Your task to perform on an android device: Search for lg ultragear on bestbuy.com, select the first entry, add it to the cart, then select checkout. Image 0: 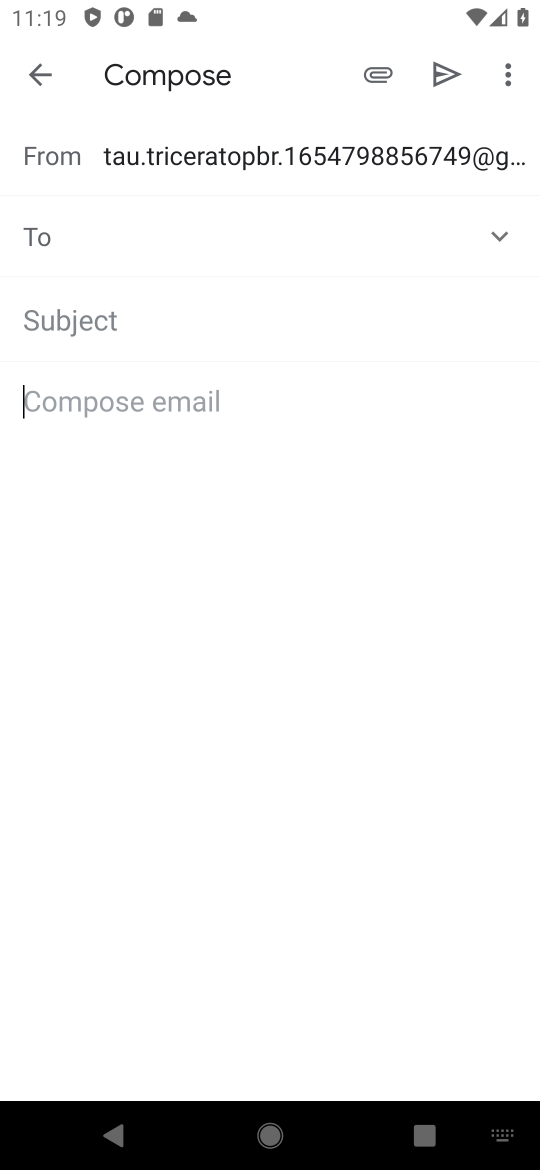
Step 0: press home button
Your task to perform on an android device: Search for lg ultragear on bestbuy.com, select the first entry, add it to the cart, then select checkout. Image 1: 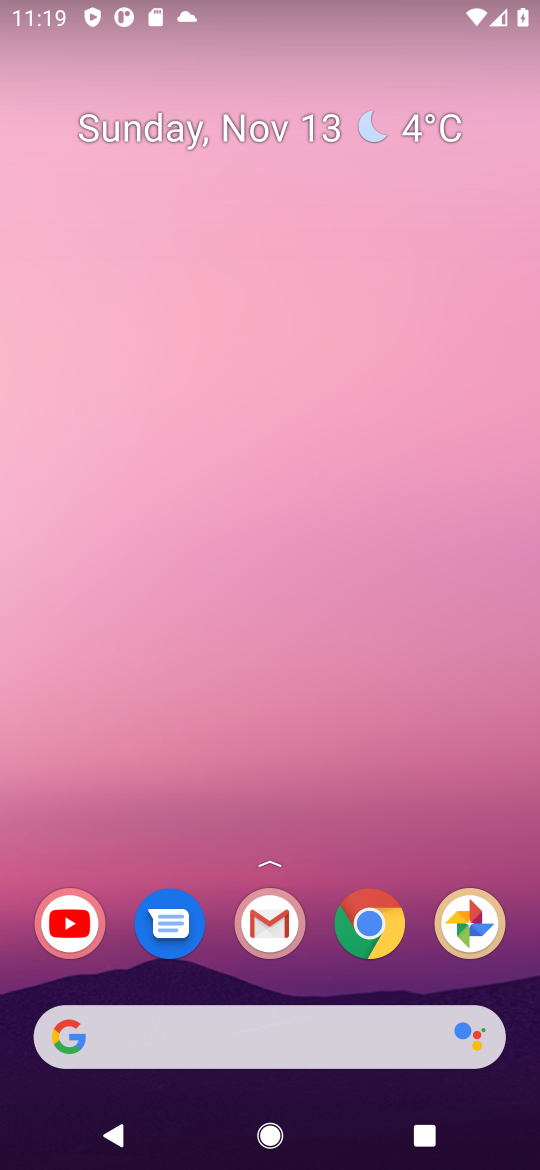
Step 1: click (377, 921)
Your task to perform on an android device: Search for lg ultragear on bestbuy.com, select the first entry, add it to the cart, then select checkout. Image 2: 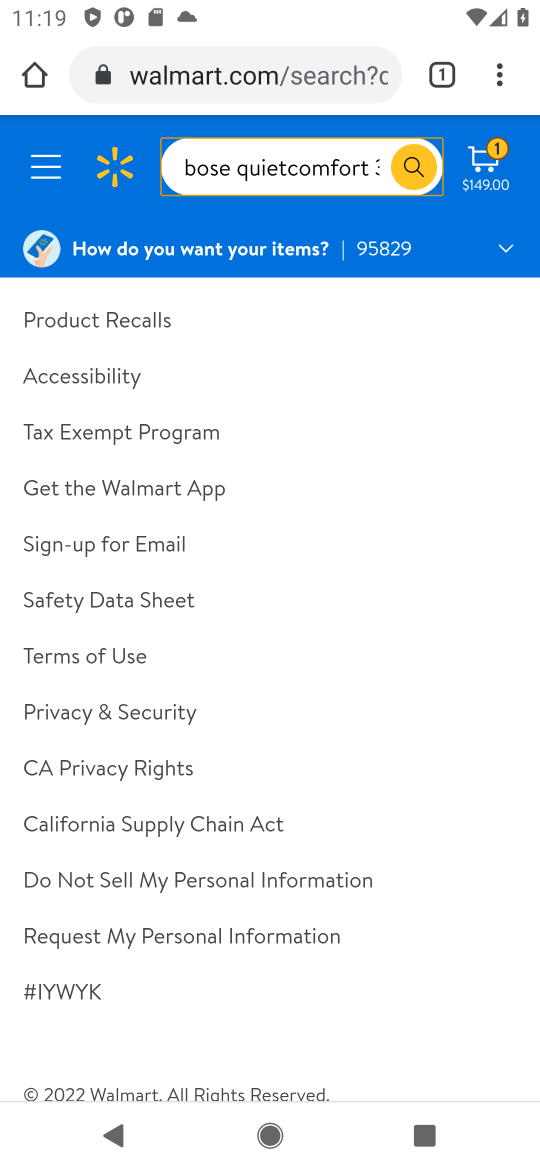
Step 2: click (309, 78)
Your task to perform on an android device: Search for lg ultragear on bestbuy.com, select the first entry, add it to the cart, then select checkout. Image 3: 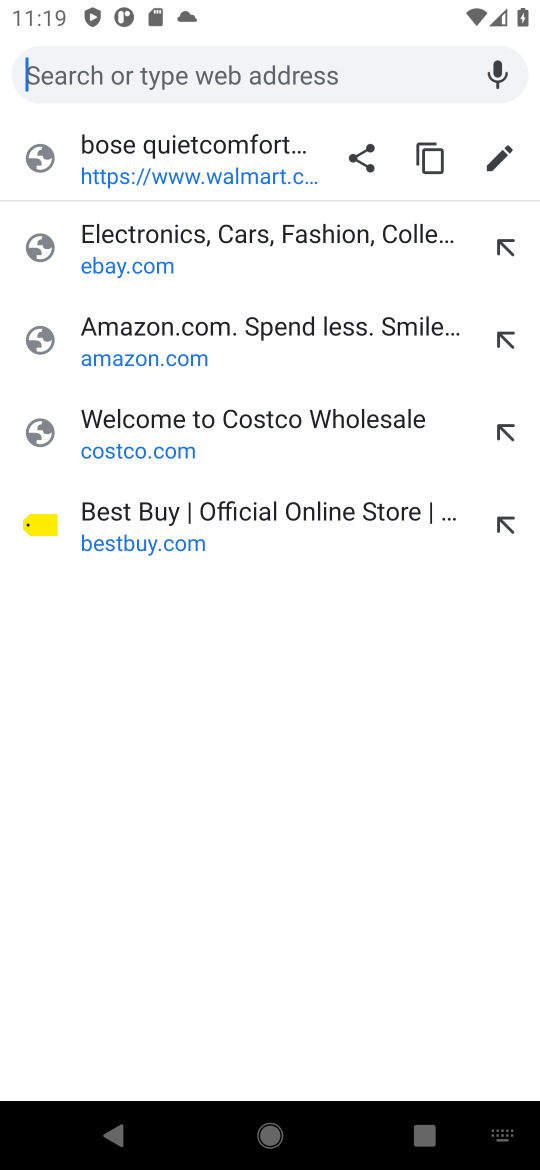
Step 3: type "bestbuy.com"
Your task to perform on an android device: Search for lg ultragear on bestbuy.com, select the first entry, add it to the cart, then select checkout. Image 4: 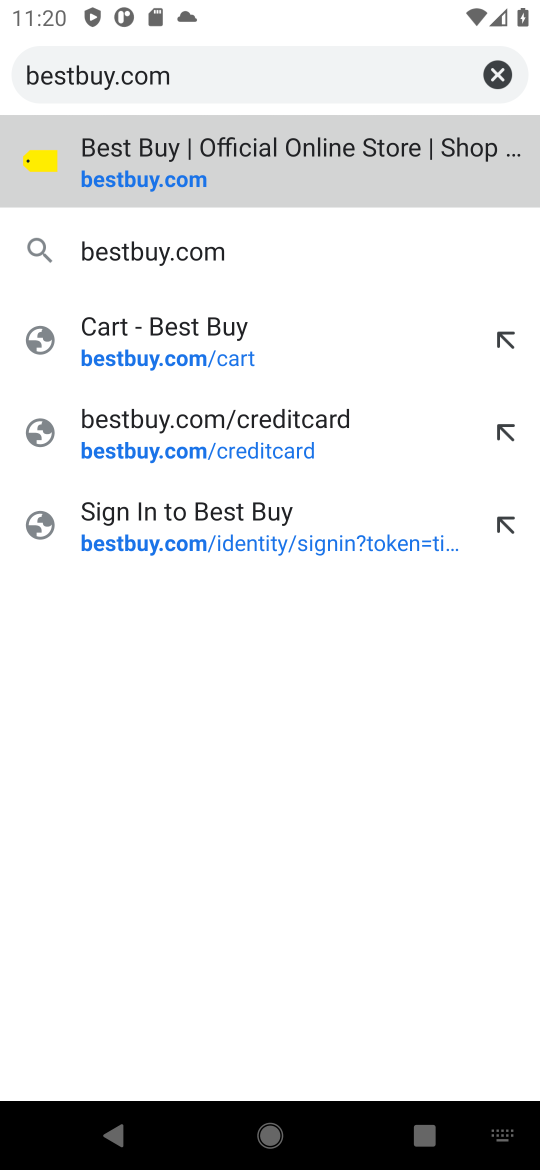
Step 4: press enter
Your task to perform on an android device: Search for lg ultragear on bestbuy.com, select the first entry, add it to the cart, then select checkout. Image 5: 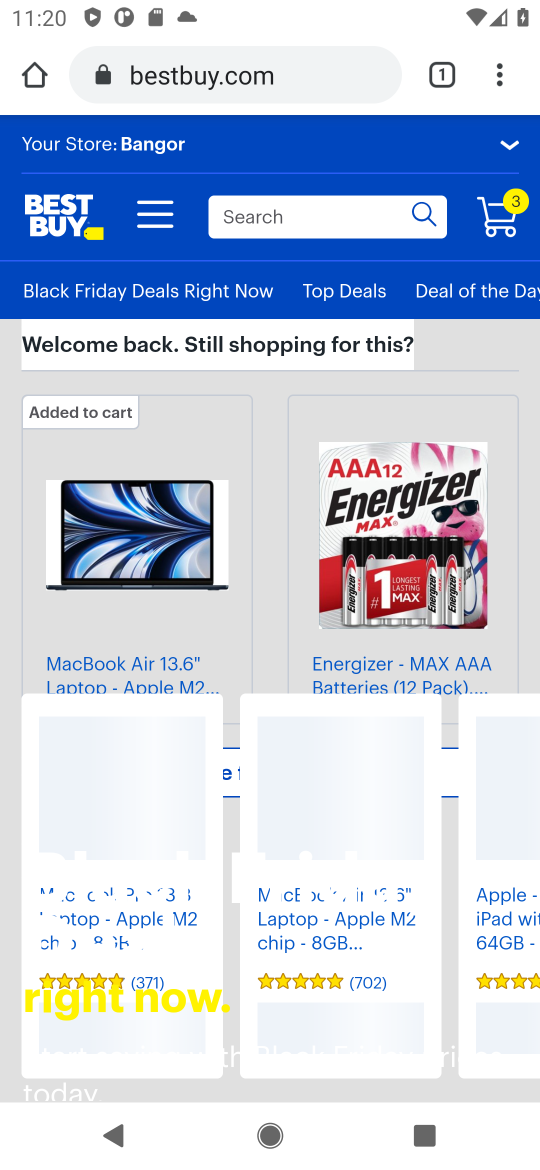
Step 5: click (300, 222)
Your task to perform on an android device: Search for lg ultragear on bestbuy.com, select the first entry, add it to the cart, then select checkout. Image 6: 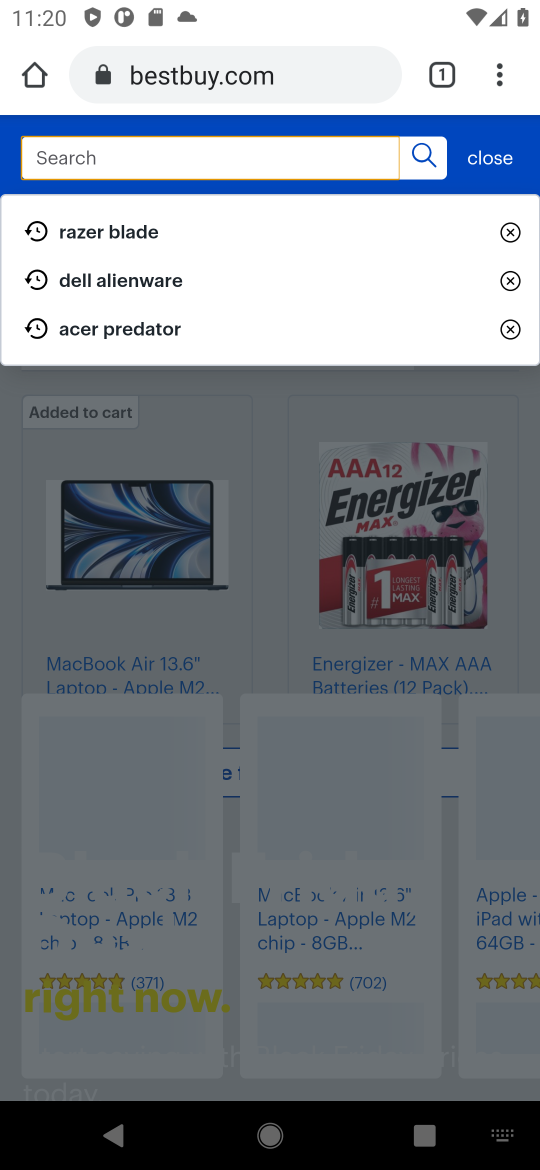
Step 6: type "lg ultragear"
Your task to perform on an android device: Search for lg ultragear on bestbuy.com, select the first entry, add it to the cart, then select checkout. Image 7: 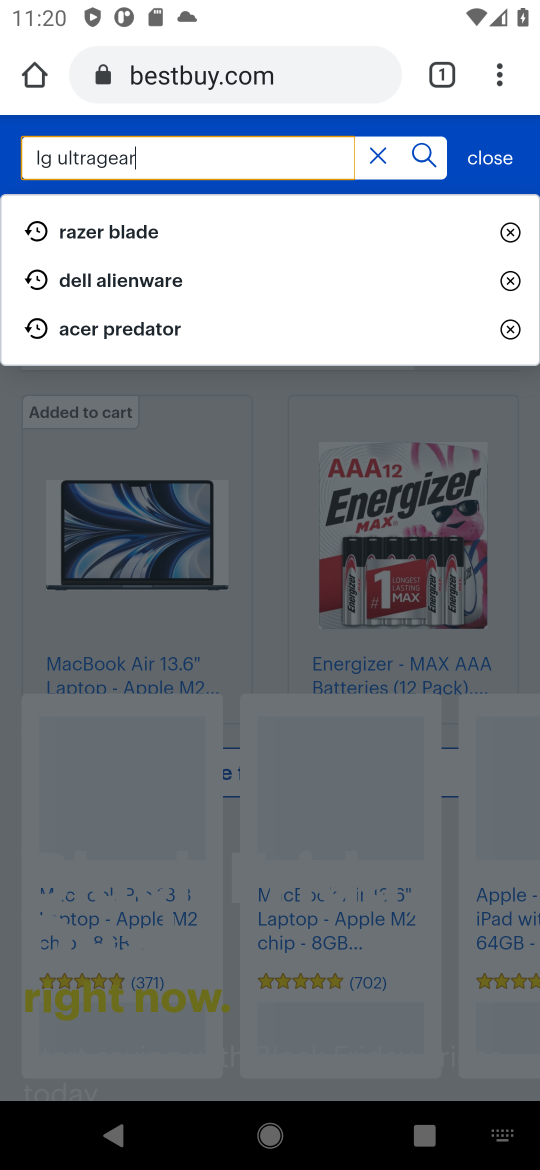
Step 7: press enter
Your task to perform on an android device: Search for lg ultragear on bestbuy.com, select the first entry, add it to the cart, then select checkout. Image 8: 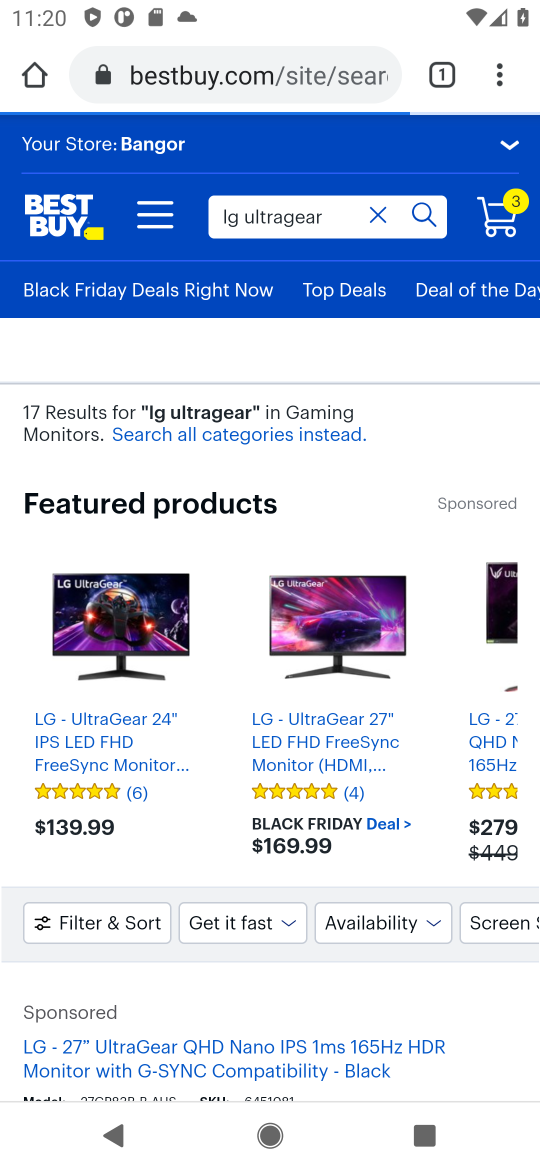
Step 8: drag from (276, 983) to (300, 601)
Your task to perform on an android device: Search for lg ultragear on bestbuy.com, select the first entry, add it to the cart, then select checkout. Image 9: 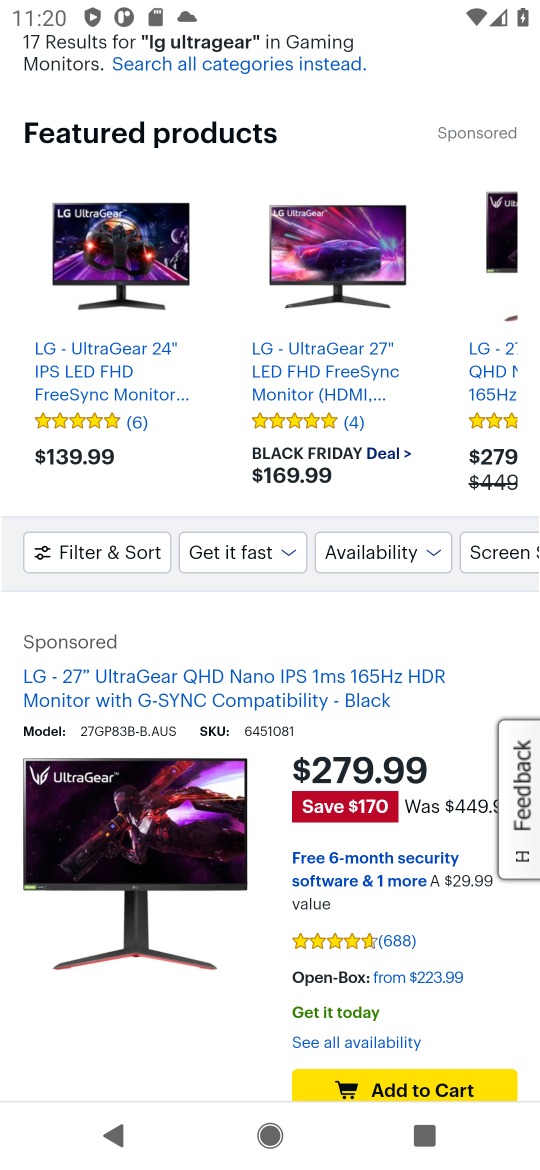
Step 9: click (153, 868)
Your task to perform on an android device: Search for lg ultragear on bestbuy.com, select the first entry, add it to the cart, then select checkout. Image 10: 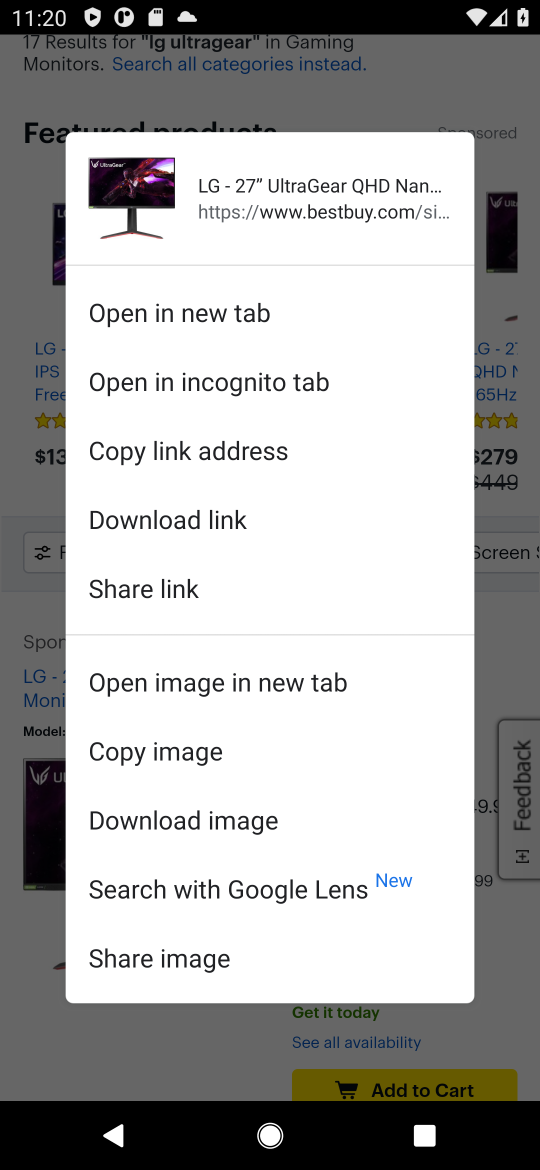
Step 10: click (521, 639)
Your task to perform on an android device: Search for lg ultragear on bestbuy.com, select the first entry, add it to the cart, then select checkout. Image 11: 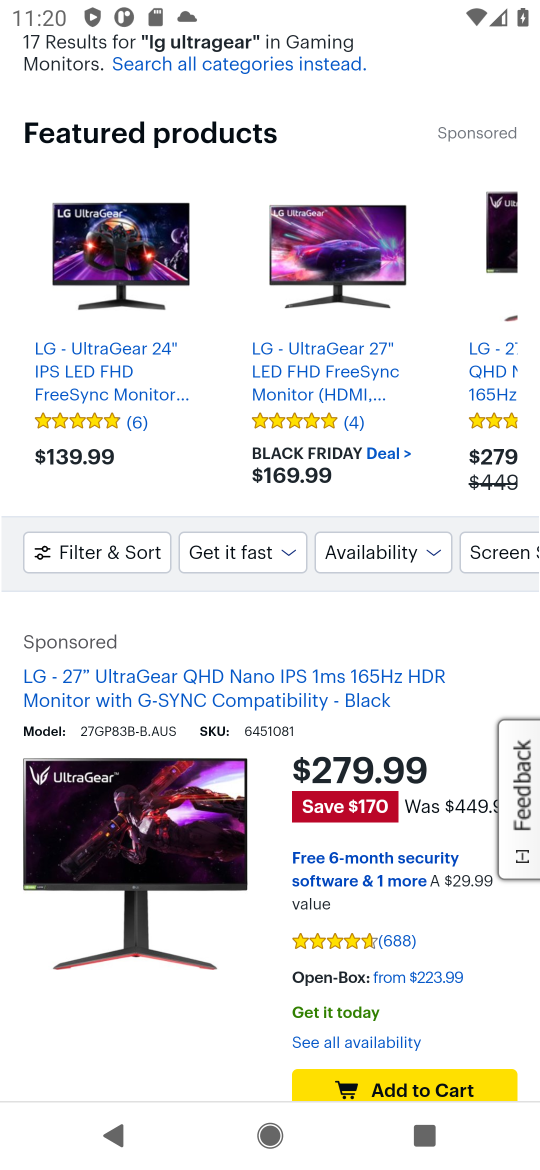
Step 11: drag from (378, 758) to (415, 332)
Your task to perform on an android device: Search for lg ultragear on bestbuy.com, select the first entry, add it to the cart, then select checkout. Image 12: 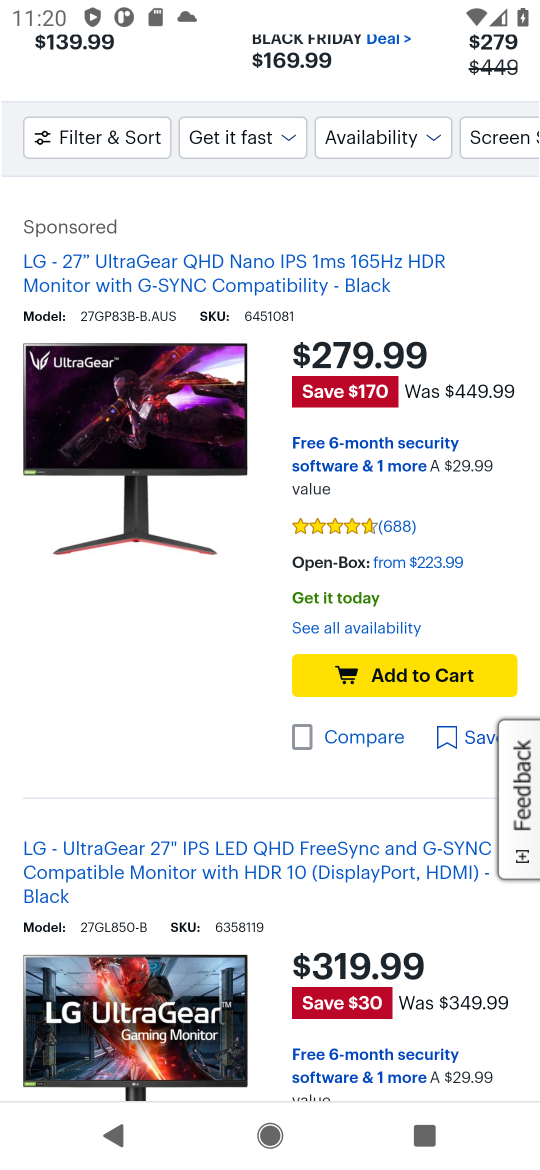
Step 12: click (193, 1003)
Your task to perform on an android device: Search for lg ultragear on bestbuy.com, select the first entry, add it to the cart, then select checkout. Image 13: 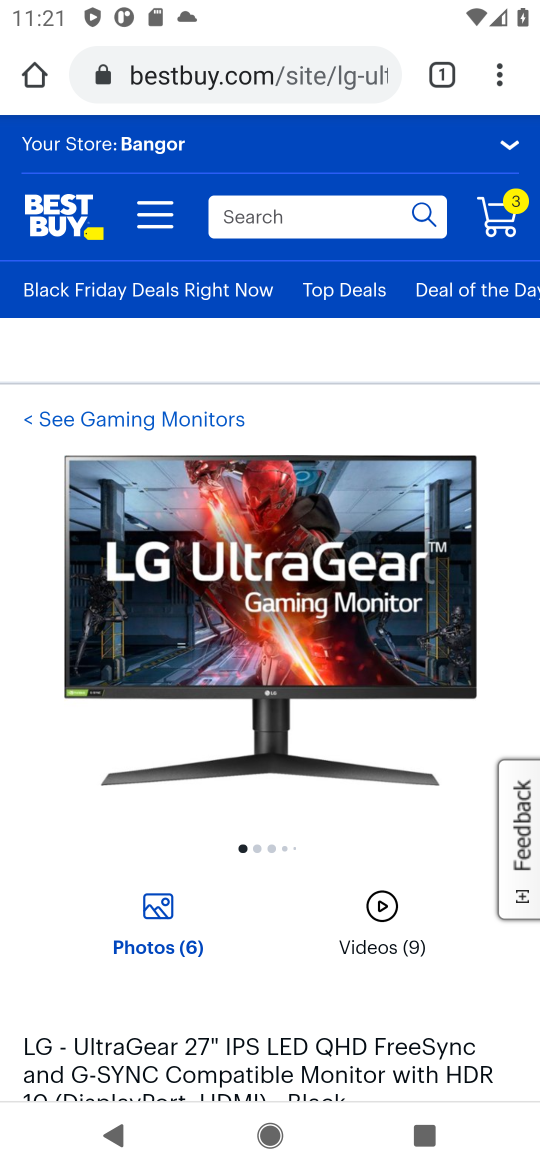
Step 13: drag from (486, 884) to (502, 345)
Your task to perform on an android device: Search for lg ultragear on bestbuy.com, select the first entry, add it to the cart, then select checkout. Image 14: 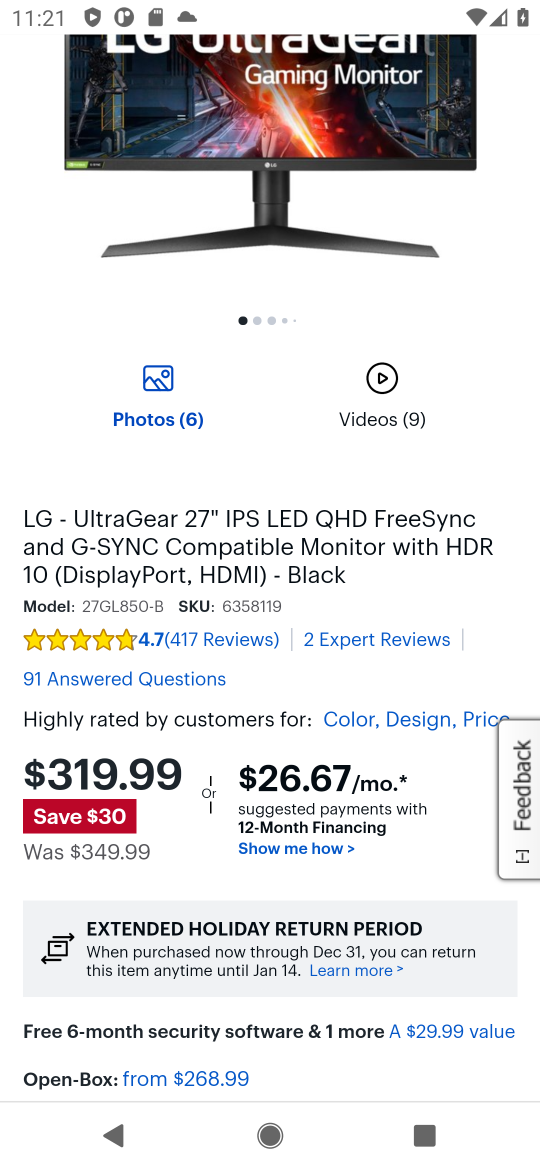
Step 14: drag from (435, 1059) to (508, 614)
Your task to perform on an android device: Search for lg ultragear on bestbuy.com, select the first entry, add it to the cart, then select checkout. Image 15: 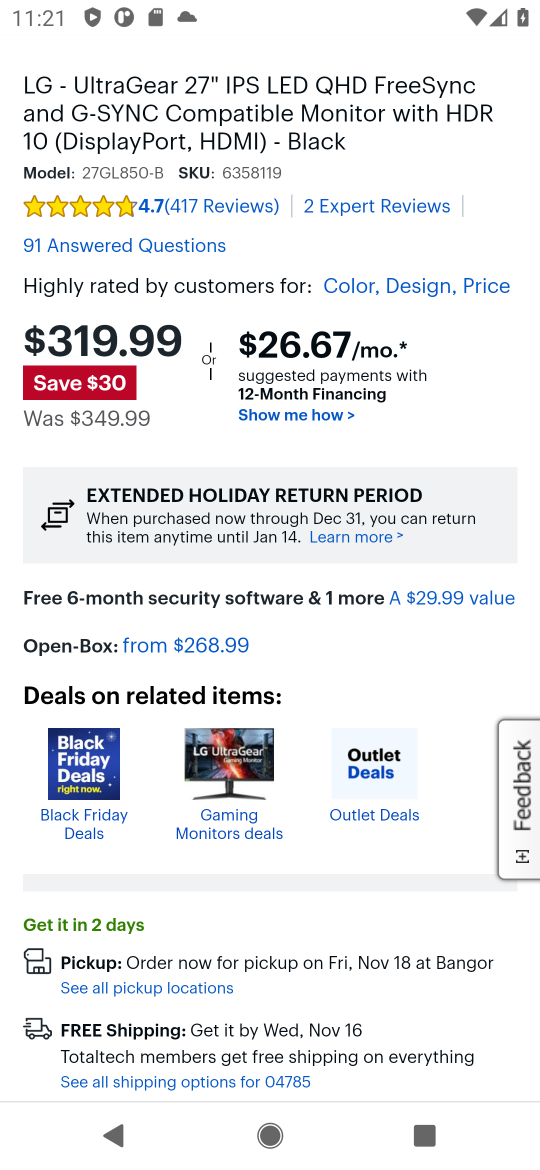
Step 15: drag from (493, 944) to (465, 418)
Your task to perform on an android device: Search for lg ultragear on bestbuy.com, select the first entry, add it to the cart, then select checkout. Image 16: 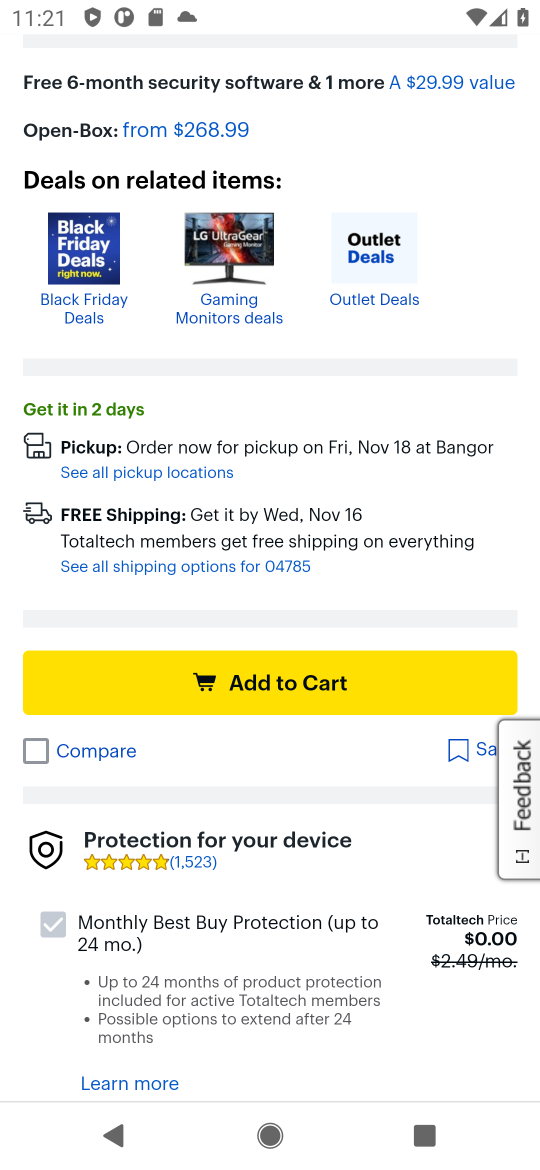
Step 16: click (365, 674)
Your task to perform on an android device: Search for lg ultragear on bestbuy.com, select the first entry, add it to the cart, then select checkout. Image 17: 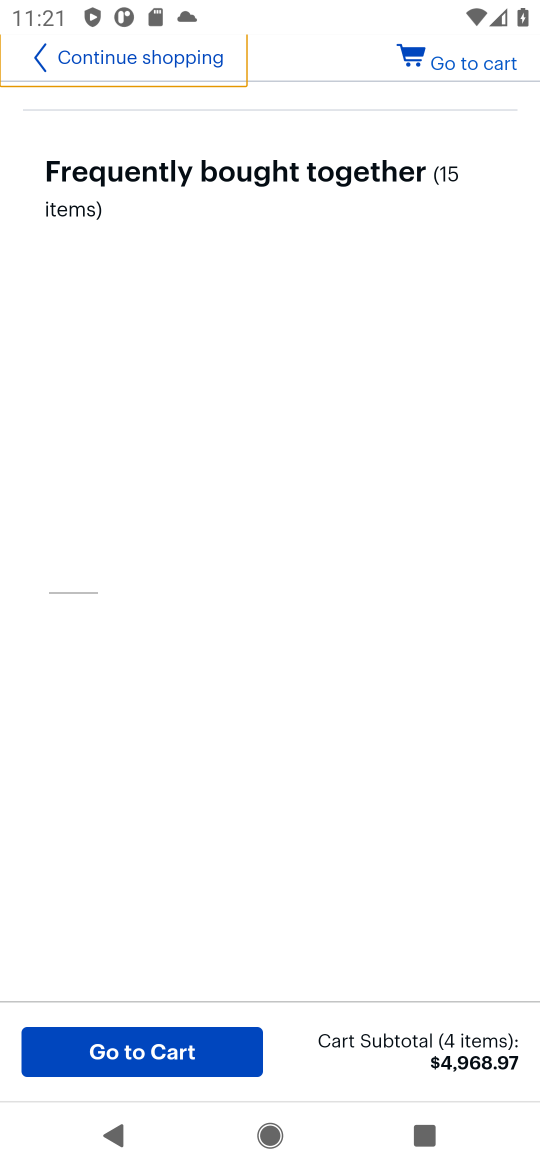
Step 17: click (204, 1051)
Your task to perform on an android device: Search for lg ultragear on bestbuy.com, select the first entry, add it to the cart, then select checkout. Image 18: 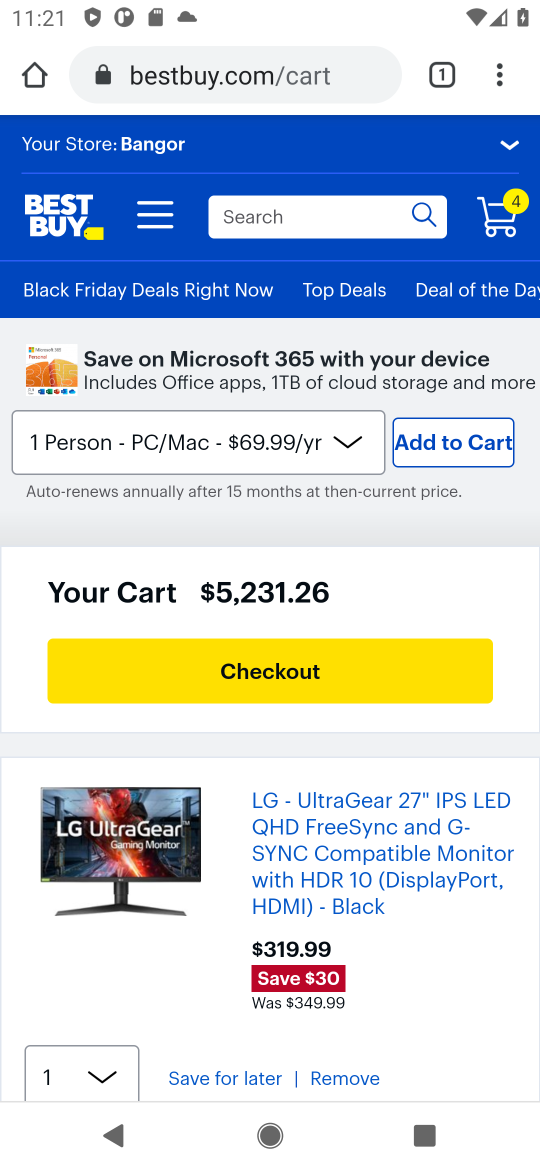
Step 18: click (318, 666)
Your task to perform on an android device: Search for lg ultragear on bestbuy.com, select the first entry, add it to the cart, then select checkout. Image 19: 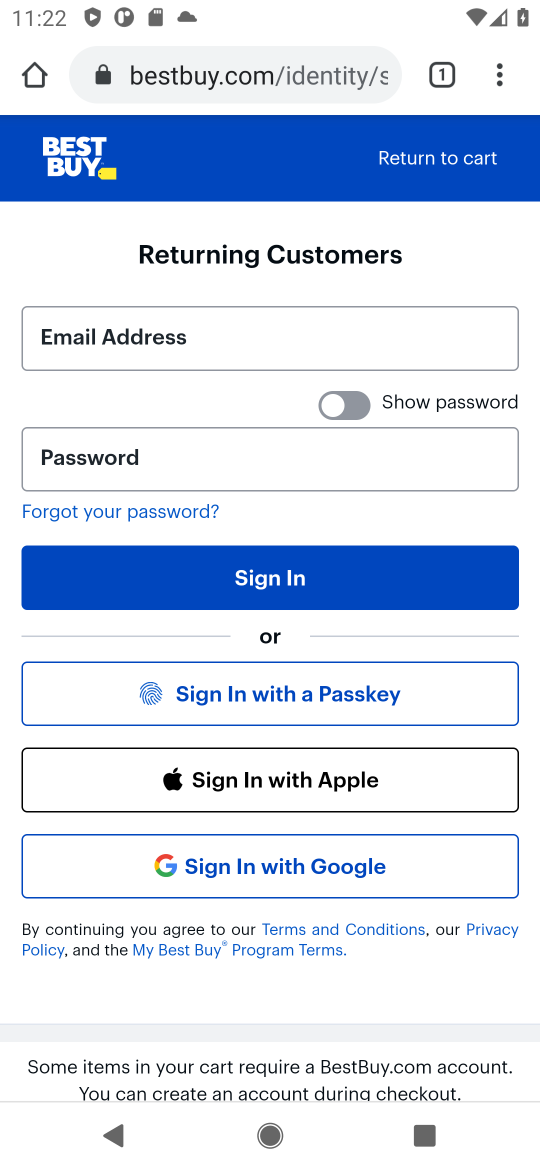
Step 19: task complete